Your task to perform on an android device: Go to Reddit.com Image 0: 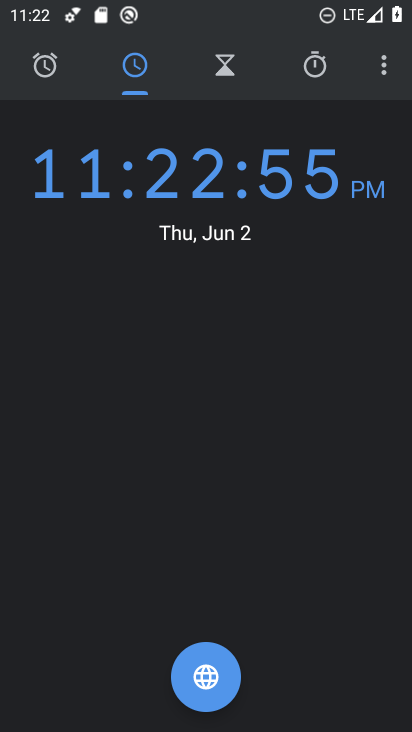
Step 0: press home button
Your task to perform on an android device: Go to Reddit.com Image 1: 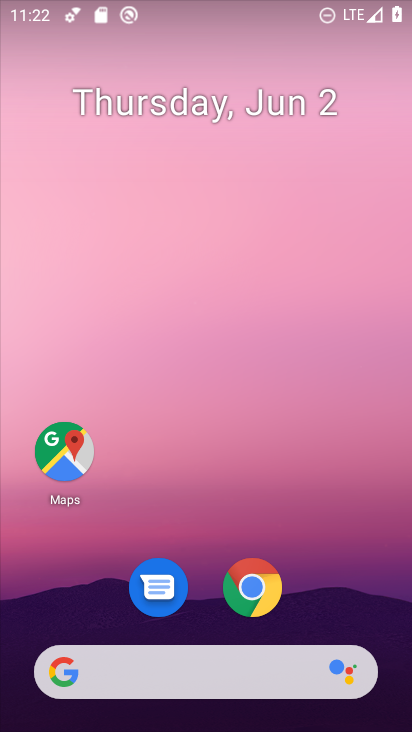
Step 1: drag from (341, 598) to (269, 149)
Your task to perform on an android device: Go to Reddit.com Image 2: 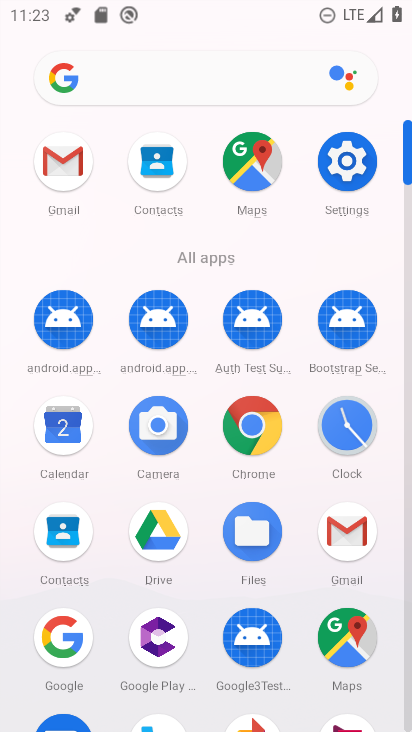
Step 2: click (267, 405)
Your task to perform on an android device: Go to Reddit.com Image 3: 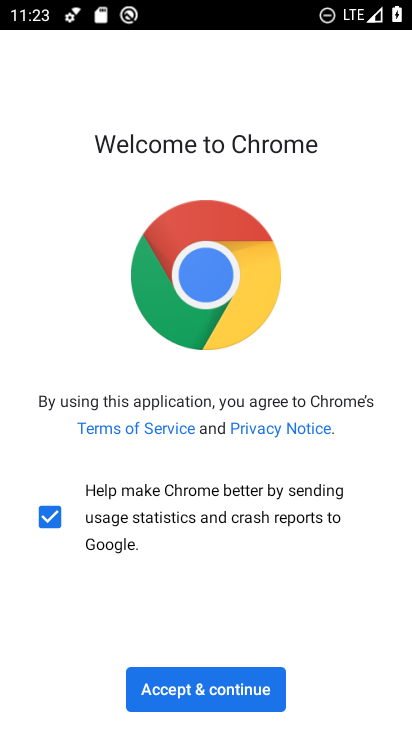
Step 3: click (234, 691)
Your task to perform on an android device: Go to Reddit.com Image 4: 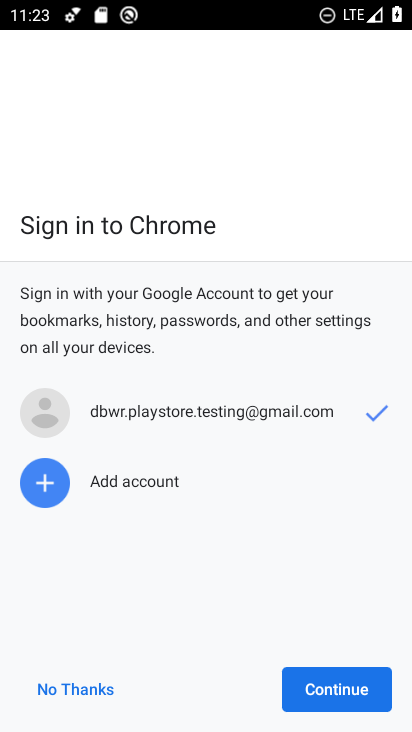
Step 4: click (372, 697)
Your task to perform on an android device: Go to Reddit.com Image 5: 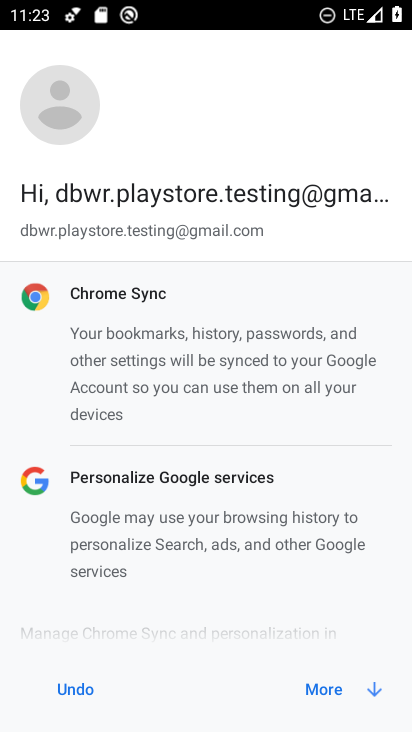
Step 5: click (372, 697)
Your task to perform on an android device: Go to Reddit.com Image 6: 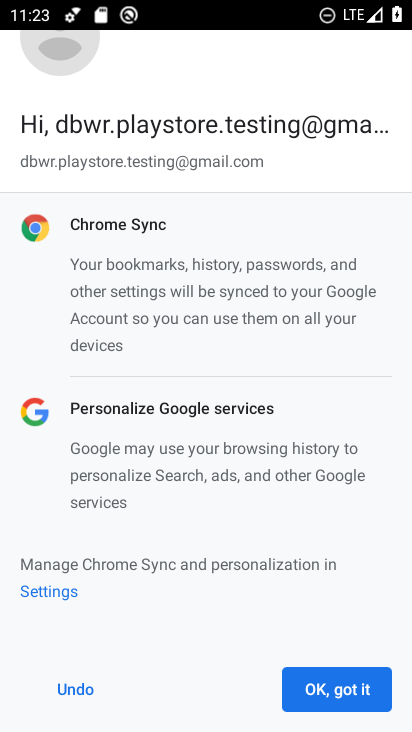
Step 6: click (346, 694)
Your task to perform on an android device: Go to Reddit.com Image 7: 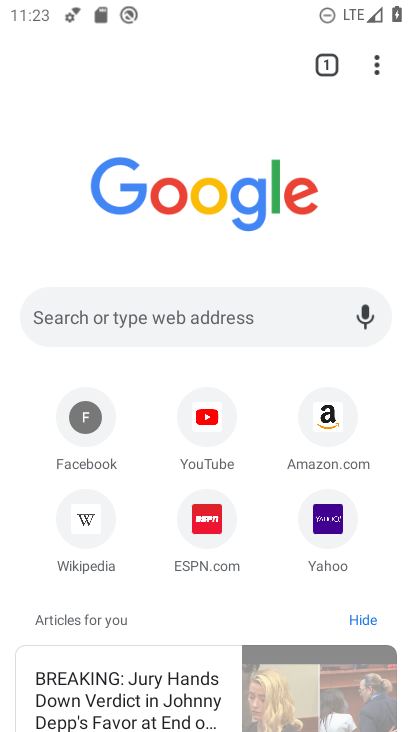
Step 7: click (201, 313)
Your task to perform on an android device: Go to Reddit.com Image 8: 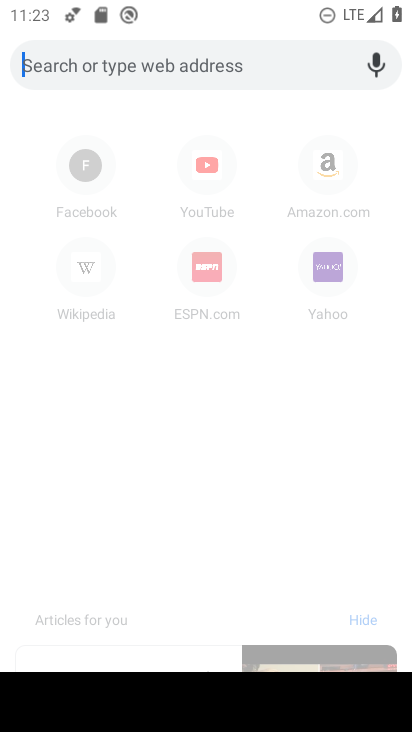
Step 8: type "reddit.com"
Your task to perform on an android device: Go to Reddit.com Image 9: 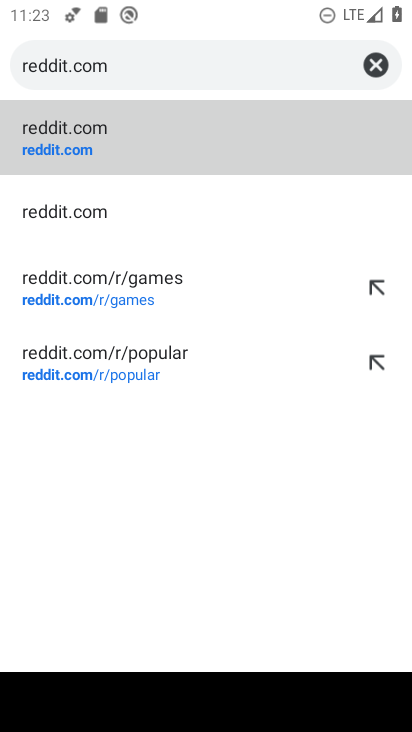
Step 9: click (79, 149)
Your task to perform on an android device: Go to Reddit.com Image 10: 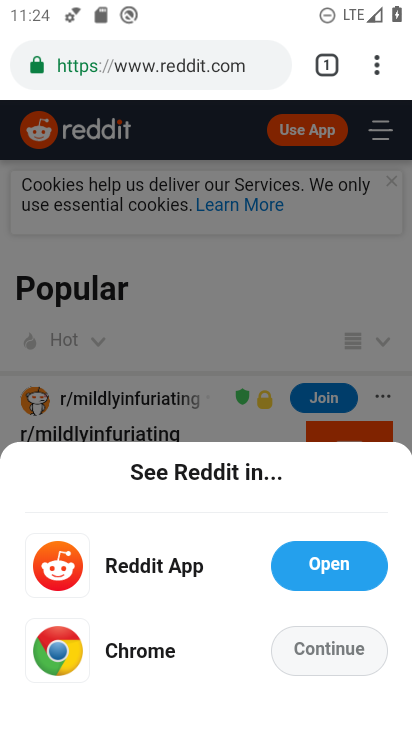
Step 10: task complete